Your task to perform on an android device: Go to Maps Image 0: 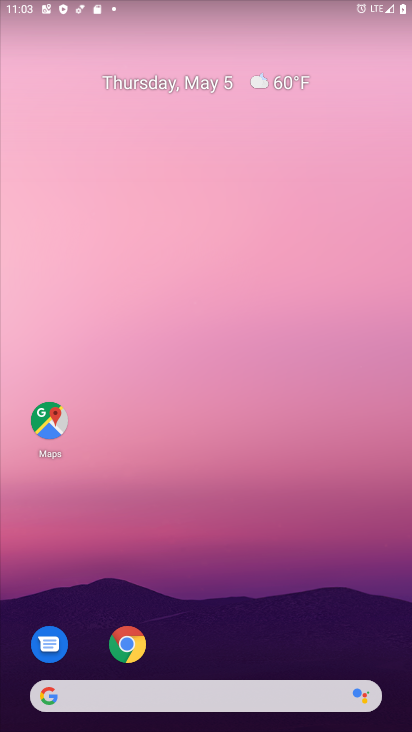
Step 0: click (40, 429)
Your task to perform on an android device: Go to Maps Image 1: 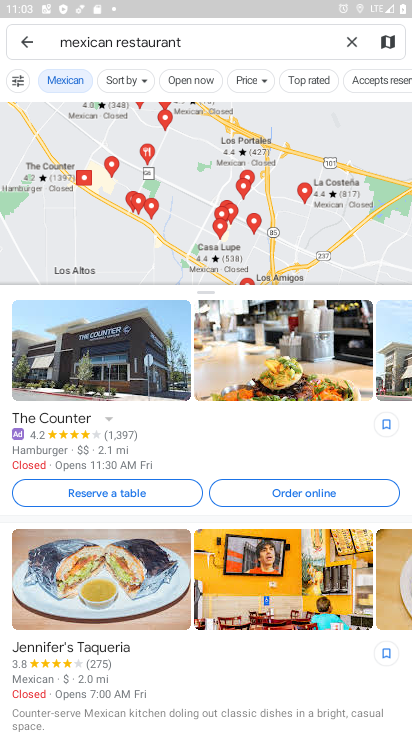
Step 1: task complete